Your task to perform on an android device: Open Google Maps and go to "Timeline" Image 0: 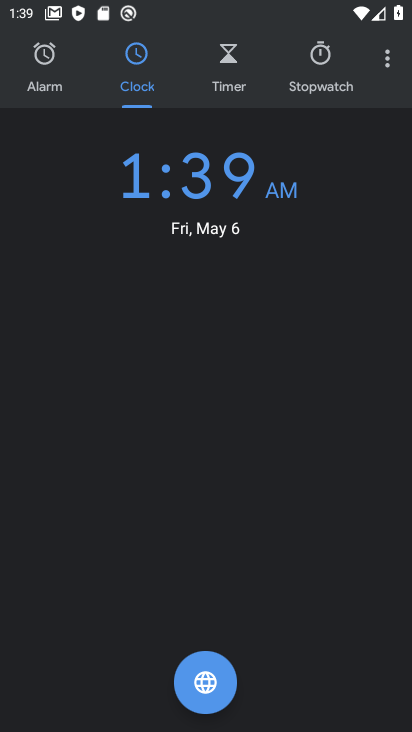
Step 0: press home button
Your task to perform on an android device: Open Google Maps and go to "Timeline" Image 1: 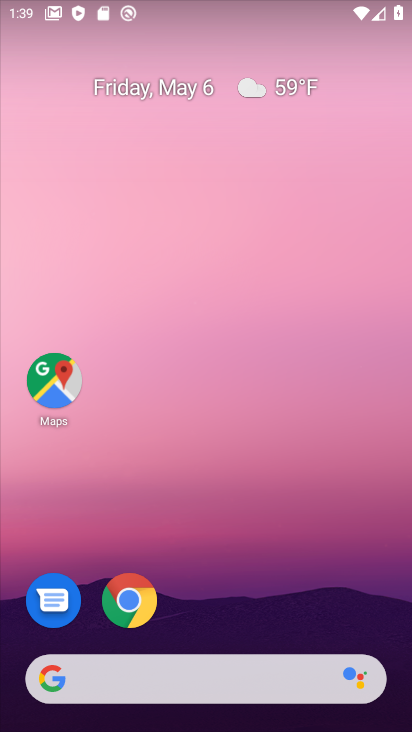
Step 1: click (51, 382)
Your task to perform on an android device: Open Google Maps and go to "Timeline" Image 2: 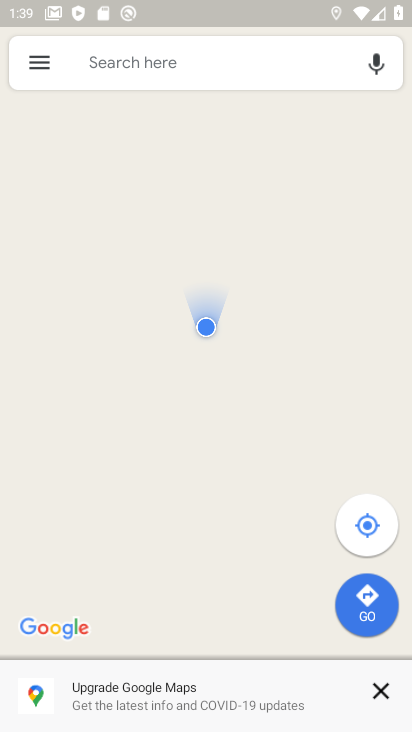
Step 2: click (42, 61)
Your task to perform on an android device: Open Google Maps and go to "Timeline" Image 3: 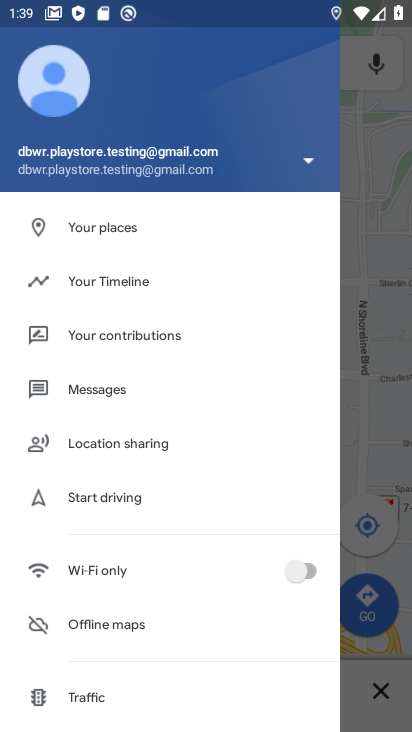
Step 3: click (131, 286)
Your task to perform on an android device: Open Google Maps and go to "Timeline" Image 4: 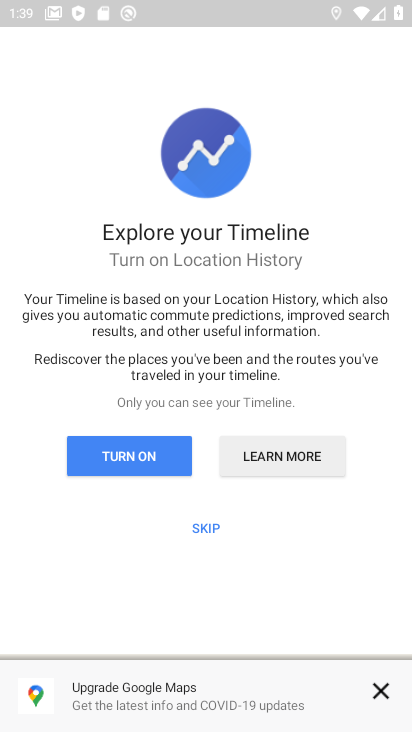
Step 4: click (136, 449)
Your task to perform on an android device: Open Google Maps and go to "Timeline" Image 5: 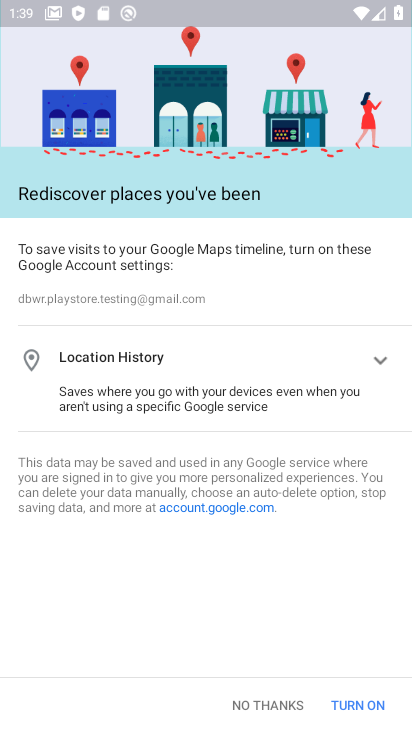
Step 5: click (352, 712)
Your task to perform on an android device: Open Google Maps and go to "Timeline" Image 6: 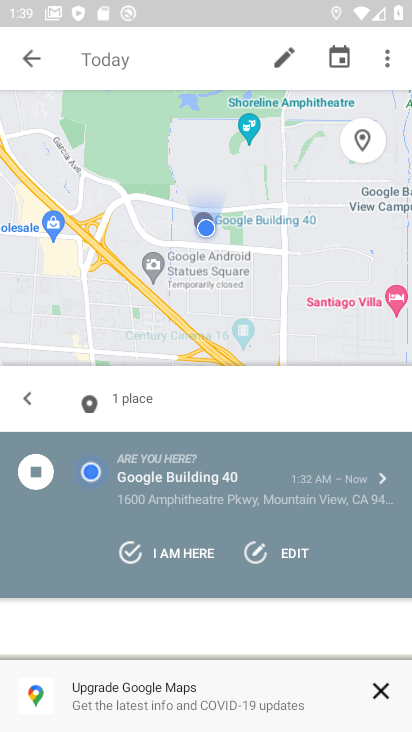
Step 6: task complete